Your task to perform on an android device: turn on translation in the chrome app Image 0: 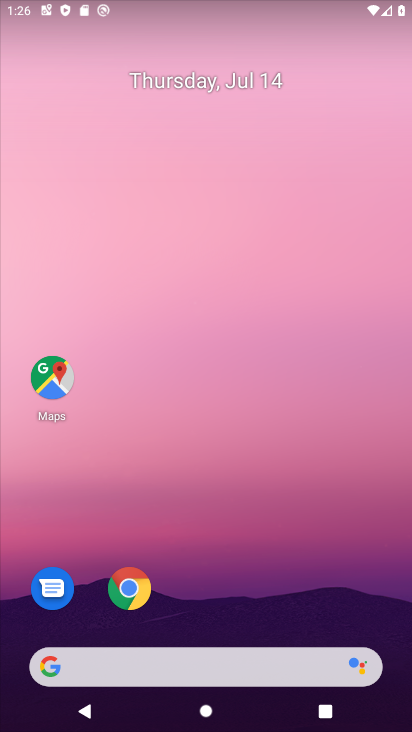
Step 0: click (135, 586)
Your task to perform on an android device: turn on translation in the chrome app Image 1: 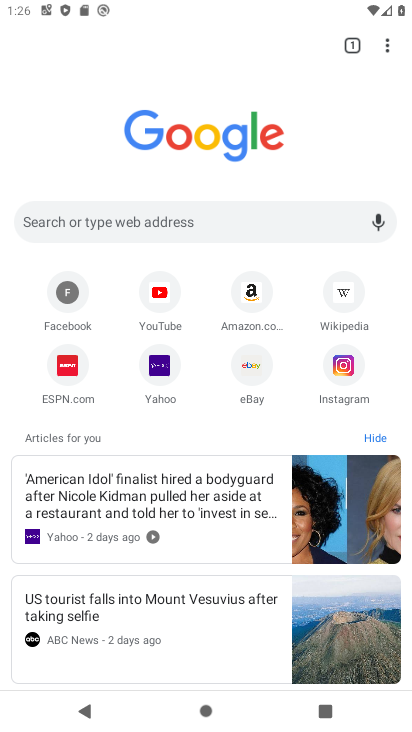
Step 1: click (382, 45)
Your task to perform on an android device: turn on translation in the chrome app Image 2: 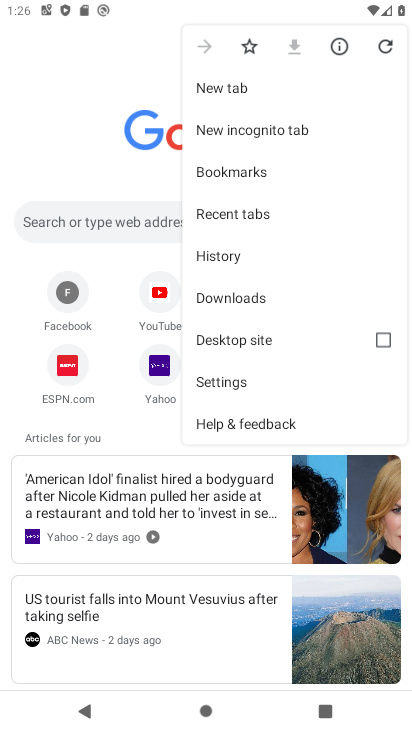
Step 2: click (208, 381)
Your task to perform on an android device: turn on translation in the chrome app Image 3: 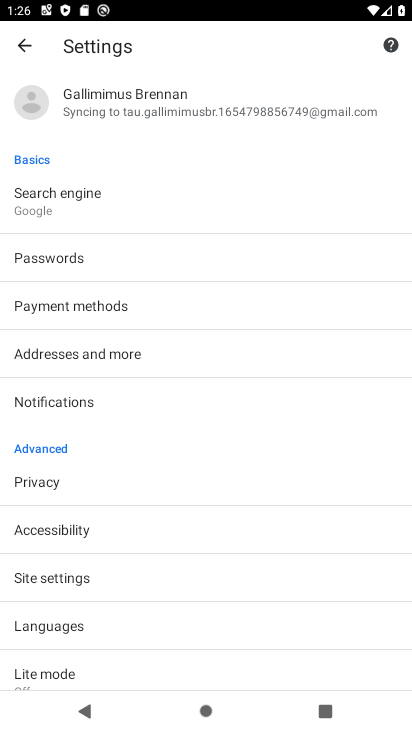
Step 3: click (129, 630)
Your task to perform on an android device: turn on translation in the chrome app Image 4: 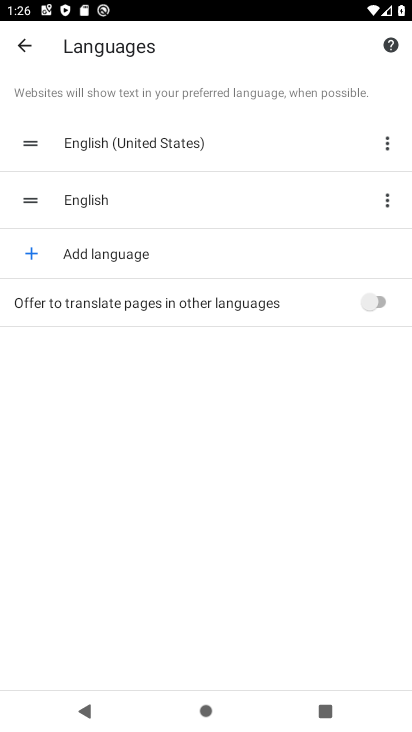
Step 4: click (370, 298)
Your task to perform on an android device: turn on translation in the chrome app Image 5: 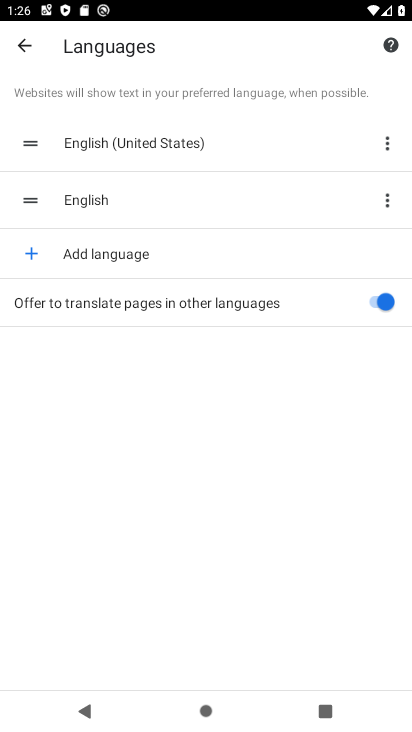
Step 5: task complete